Your task to perform on an android device: Open CNN.com Image 0: 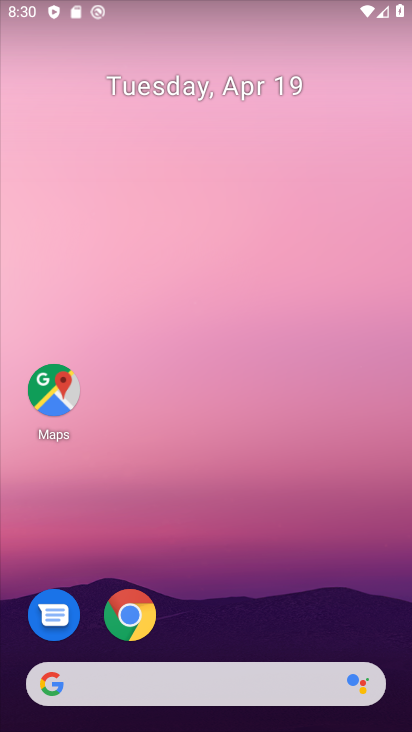
Step 0: click (191, 692)
Your task to perform on an android device: Open CNN.com Image 1: 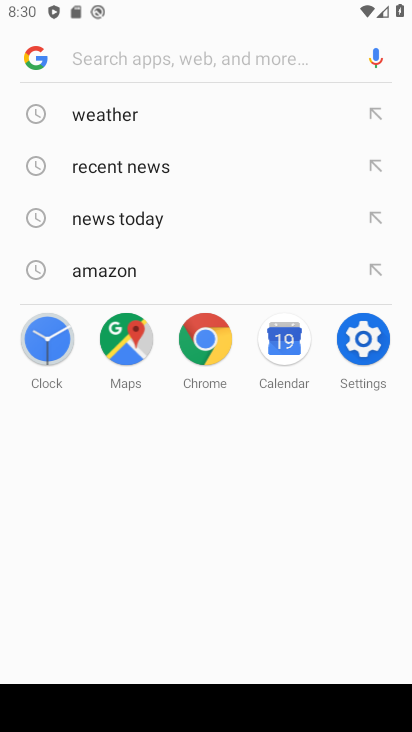
Step 1: type "CNN.com"
Your task to perform on an android device: Open CNN.com Image 2: 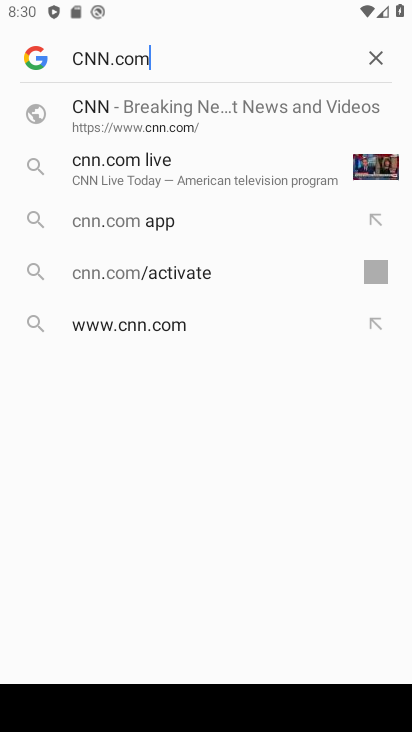
Step 2: click (159, 109)
Your task to perform on an android device: Open CNN.com Image 3: 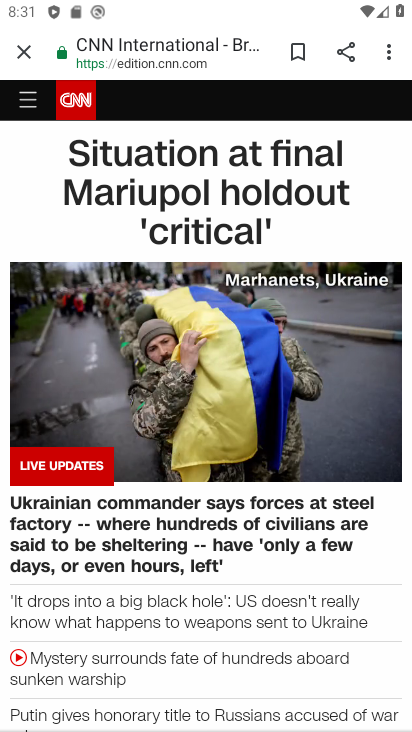
Step 3: task complete